Your task to perform on an android device: Open Maps and search for coffee Image 0: 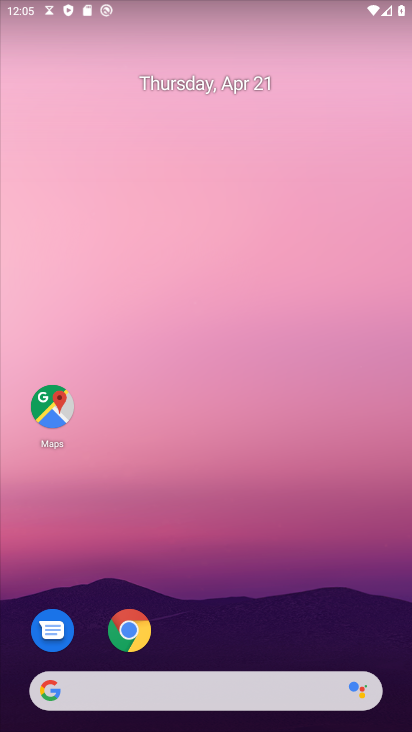
Step 0: drag from (349, 604) to (281, 209)
Your task to perform on an android device: Open Maps and search for coffee Image 1: 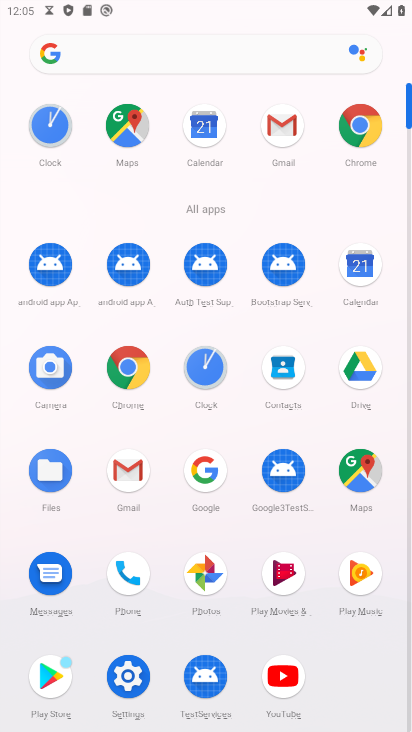
Step 1: click (119, 125)
Your task to perform on an android device: Open Maps and search for coffee Image 2: 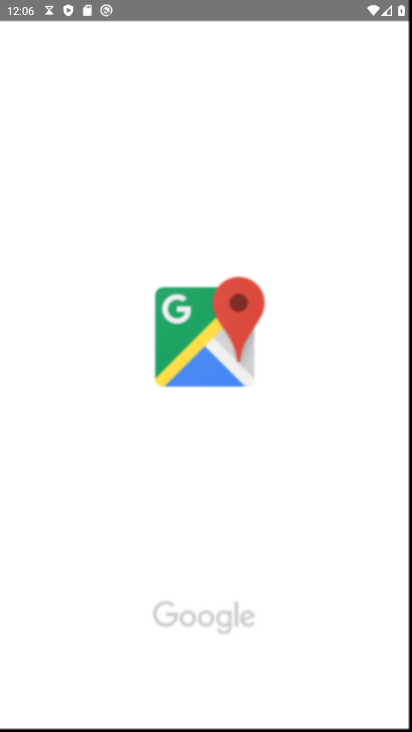
Step 2: task complete